Your task to perform on an android device: open chrome privacy settings Image 0: 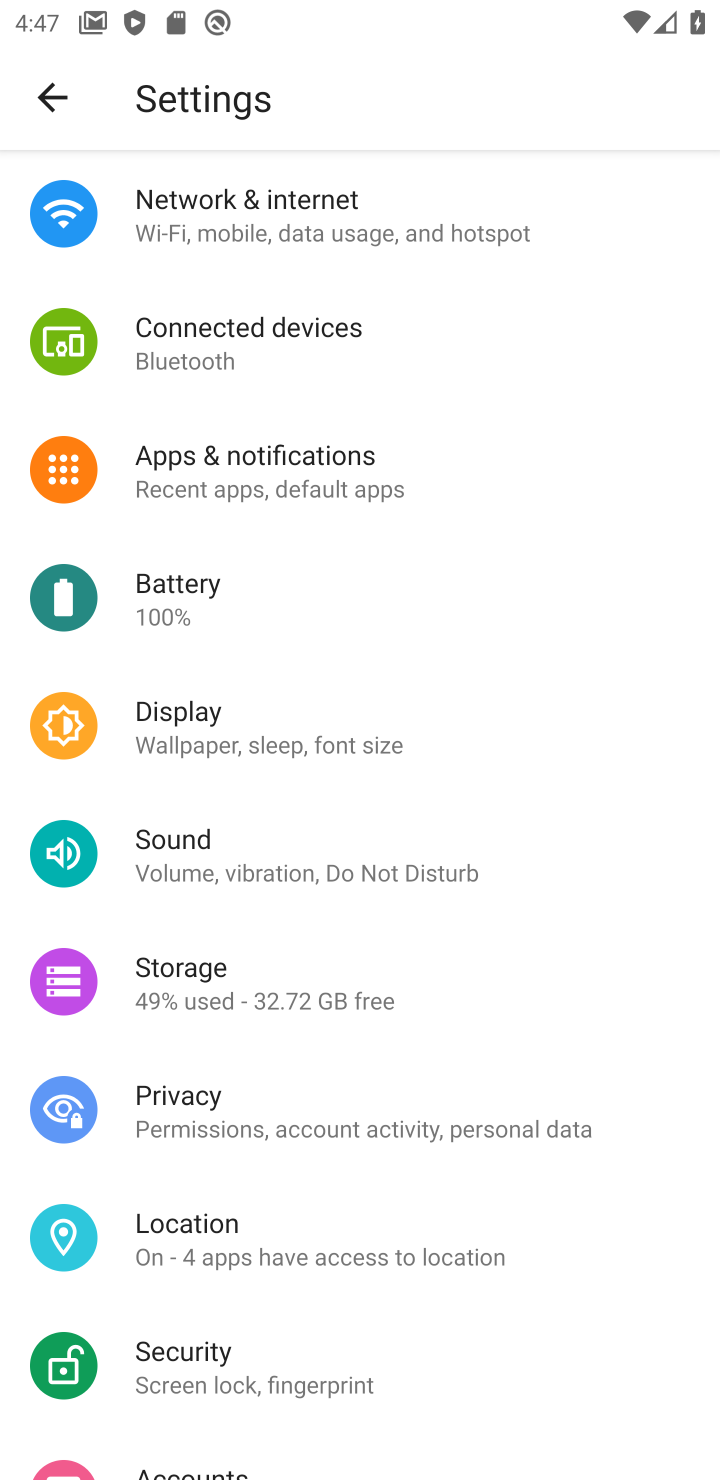
Step 0: press home button
Your task to perform on an android device: open chrome privacy settings Image 1: 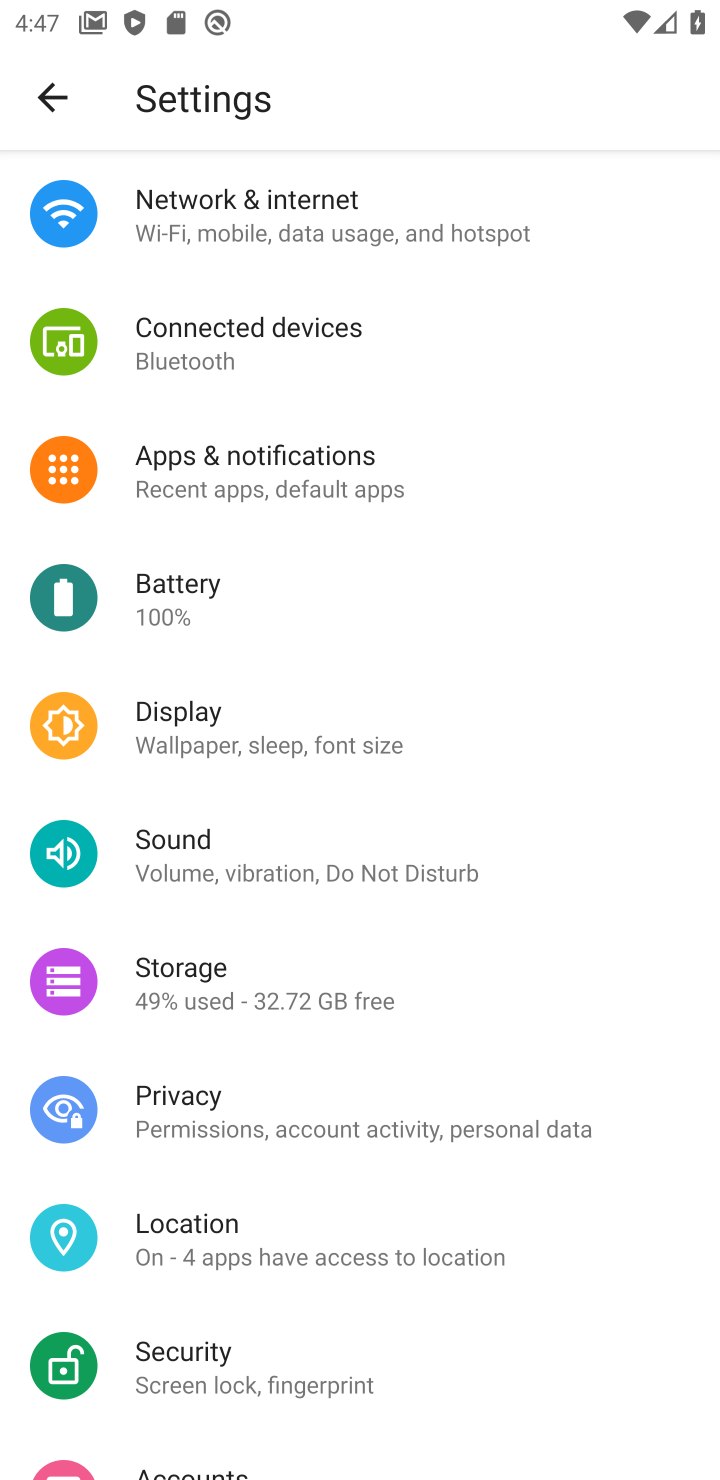
Step 1: press home button
Your task to perform on an android device: open chrome privacy settings Image 2: 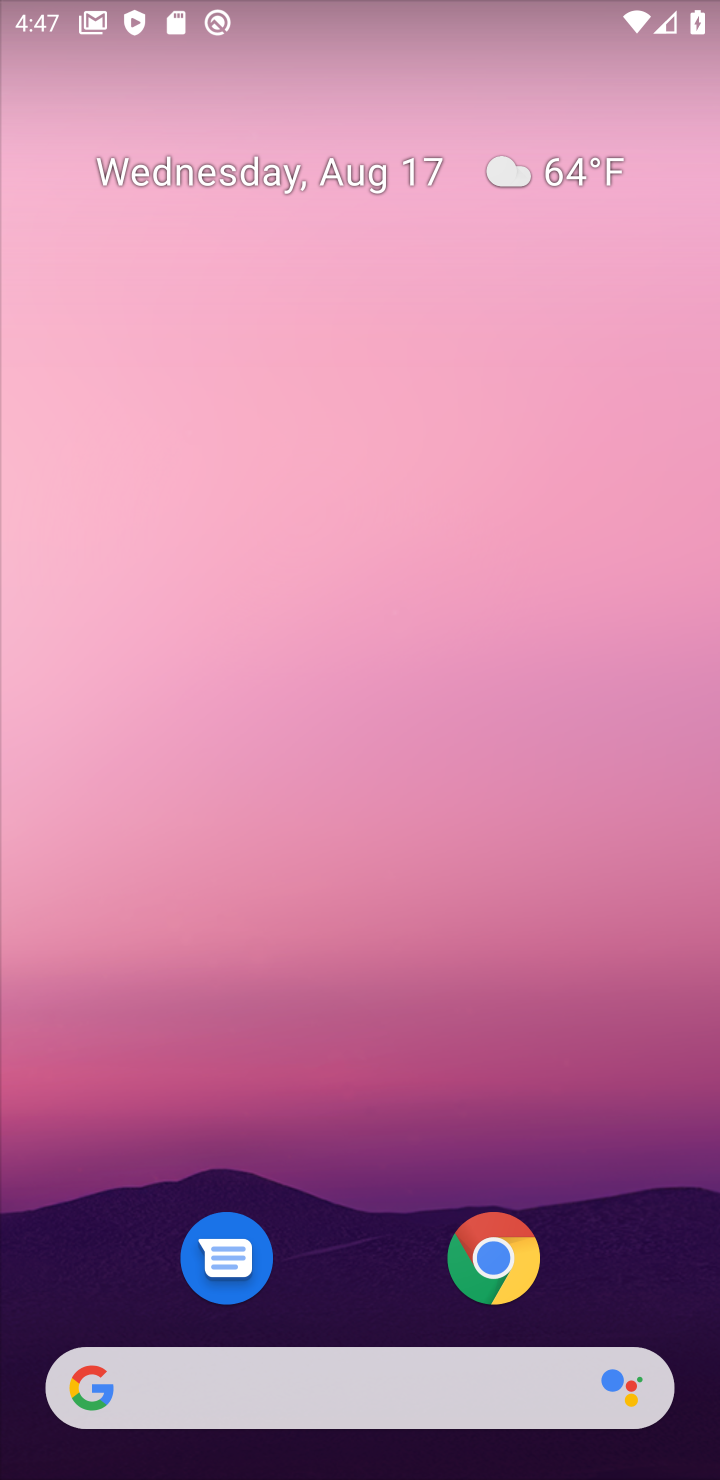
Step 2: drag from (379, 1136) to (398, 142)
Your task to perform on an android device: open chrome privacy settings Image 3: 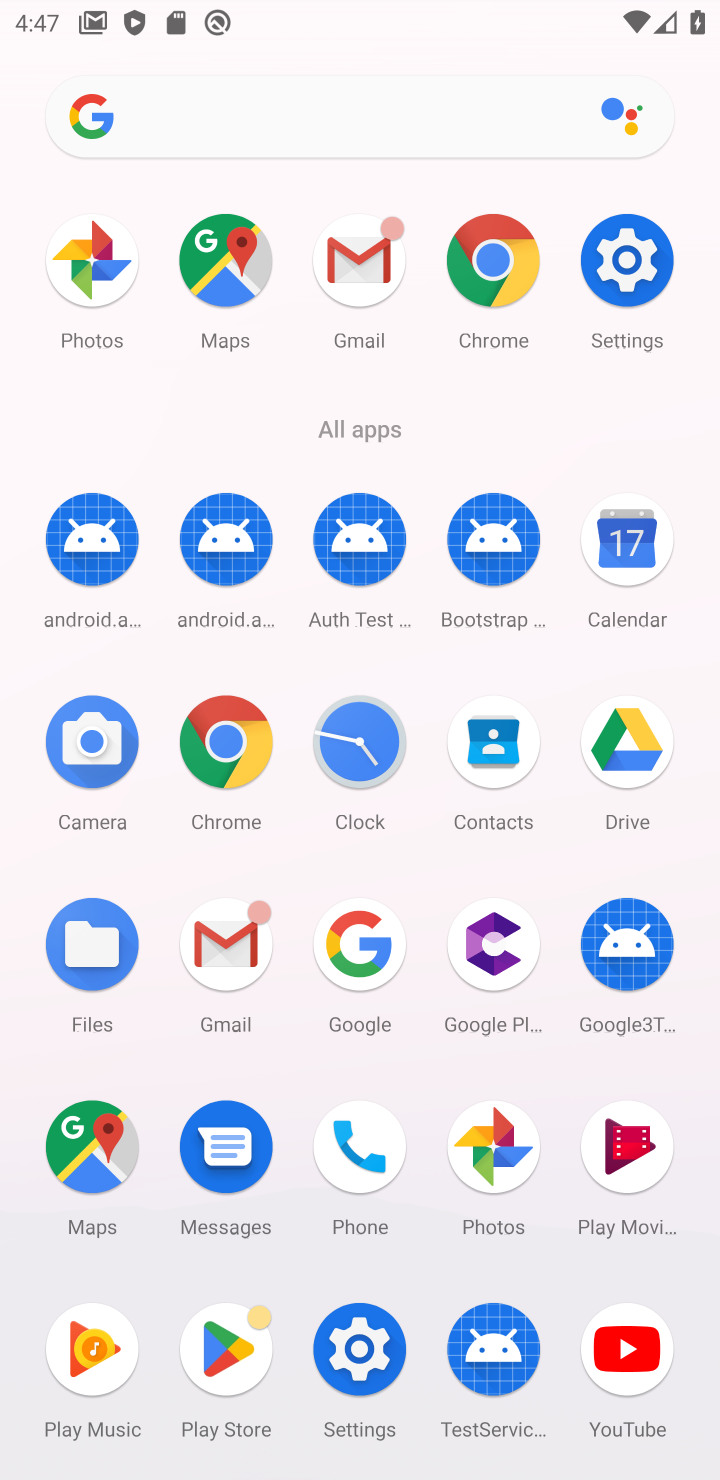
Step 3: click (212, 735)
Your task to perform on an android device: open chrome privacy settings Image 4: 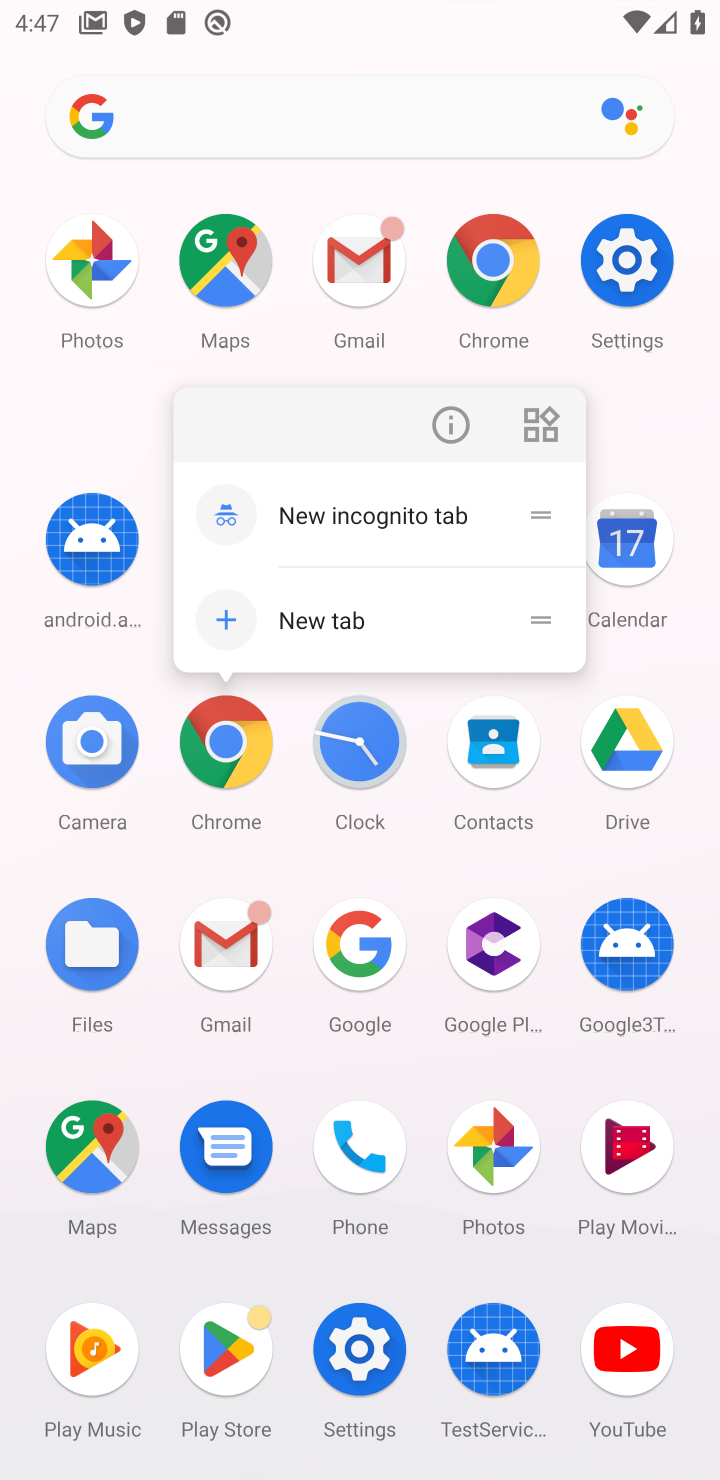
Step 4: click (211, 738)
Your task to perform on an android device: open chrome privacy settings Image 5: 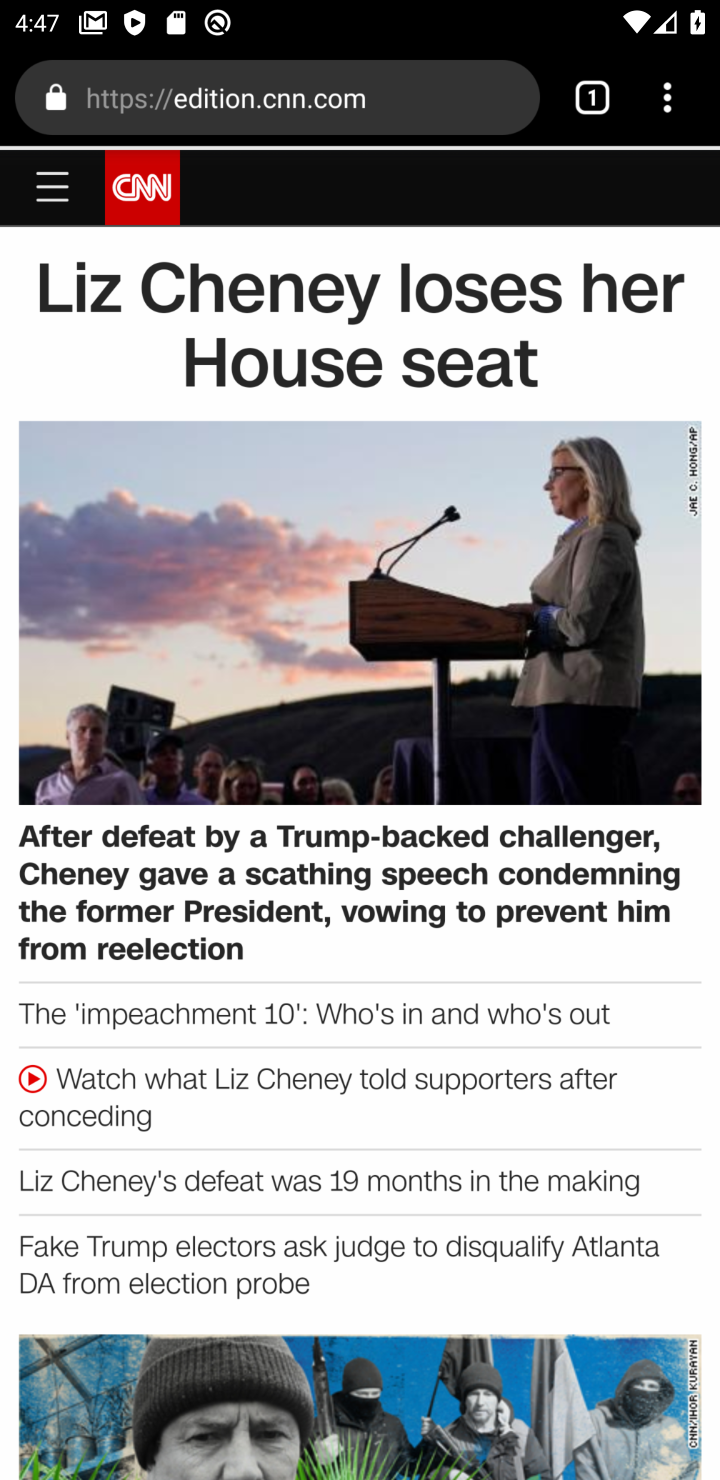
Step 5: drag from (675, 90) to (334, 1080)
Your task to perform on an android device: open chrome privacy settings Image 6: 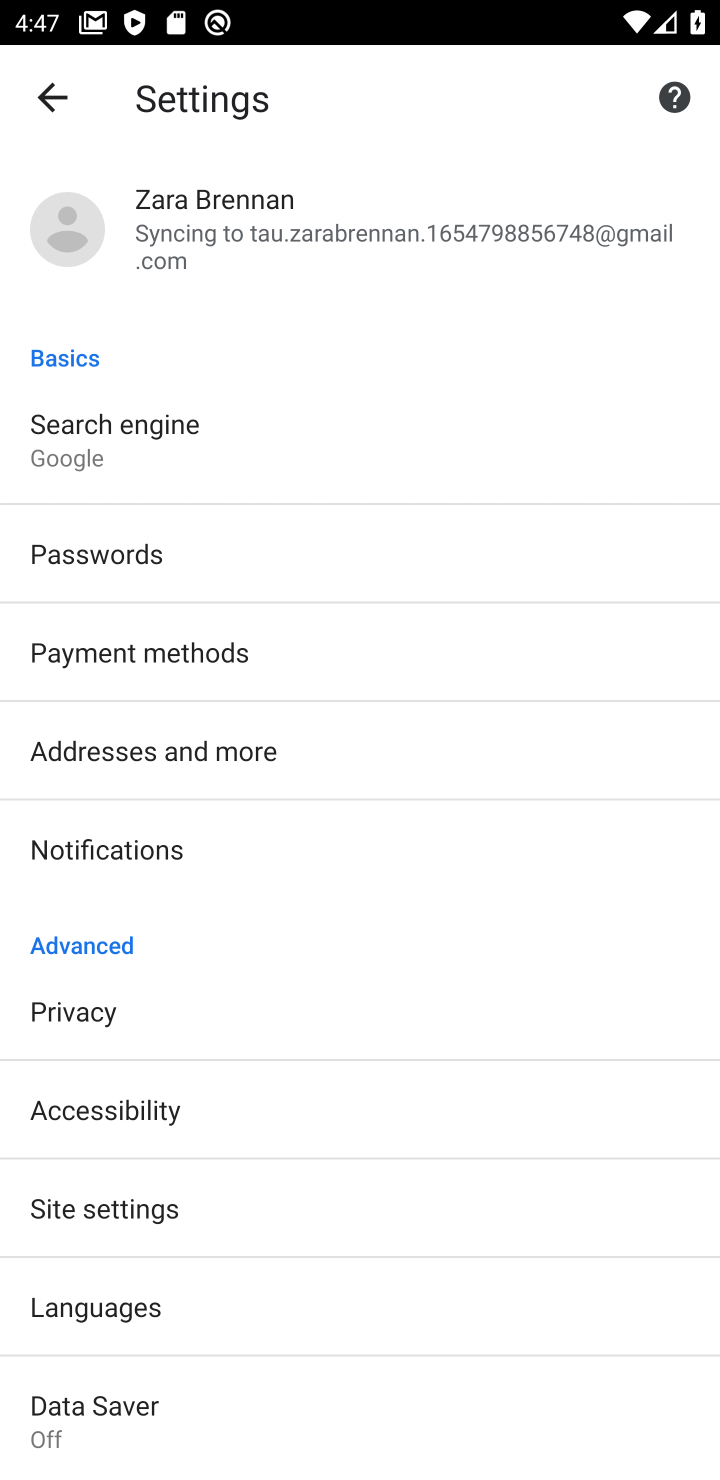
Step 6: click (95, 1011)
Your task to perform on an android device: open chrome privacy settings Image 7: 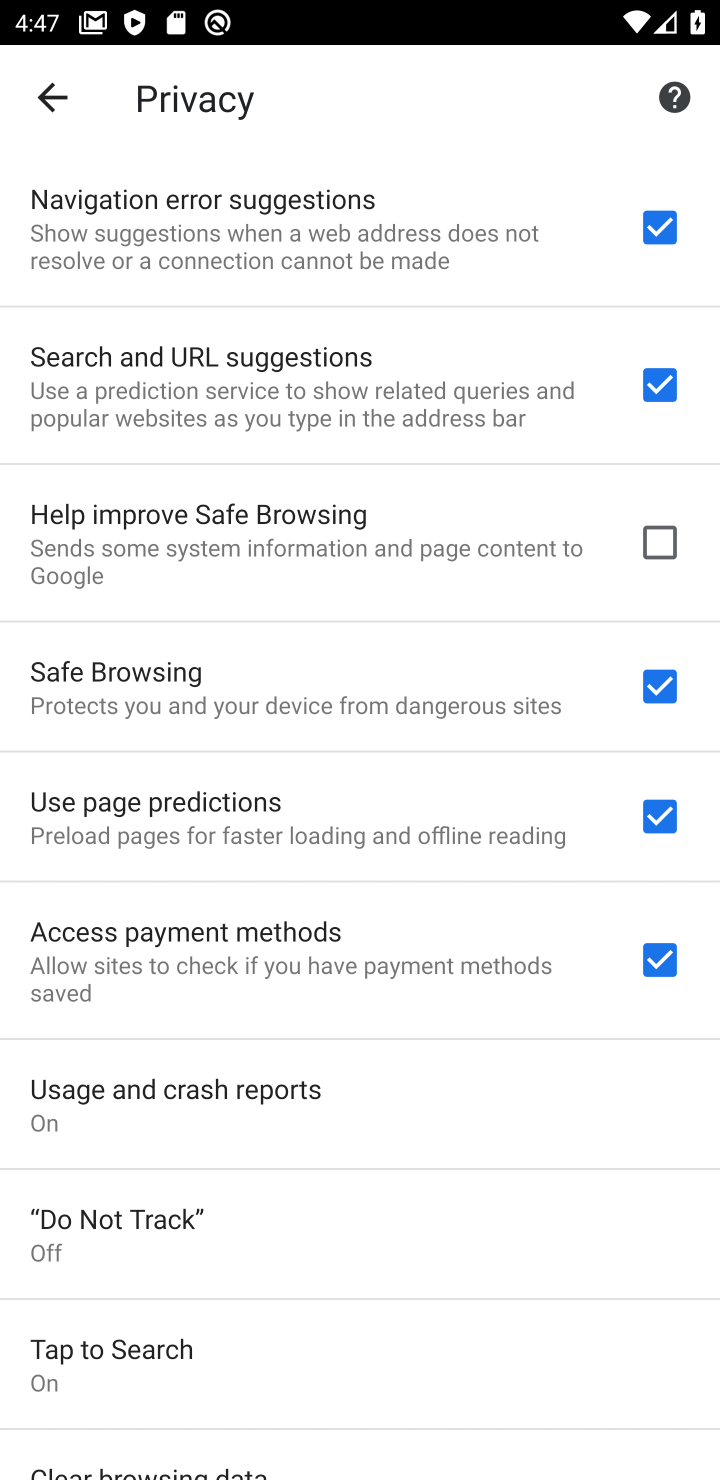
Step 7: task complete